Your task to perform on an android device: check battery use Image 0: 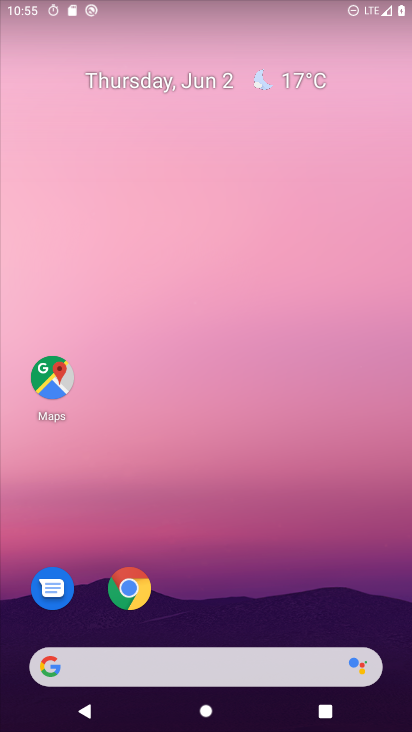
Step 0: drag from (255, 589) to (303, 175)
Your task to perform on an android device: check battery use Image 1: 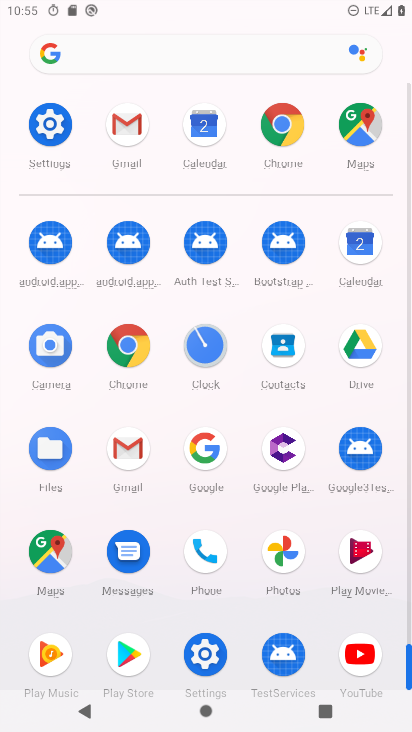
Step 1: click (62, 130)
Your task to perform on an android device: check battery use Image 2: 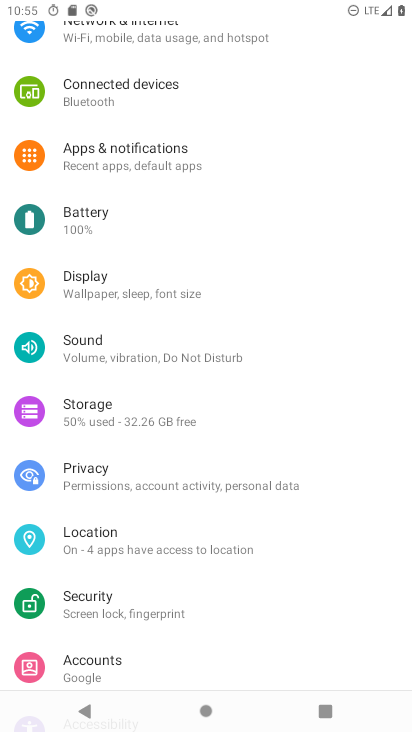
Step 2: click (143, 219)
Your task to perform on an android device: check battery use Image 3: 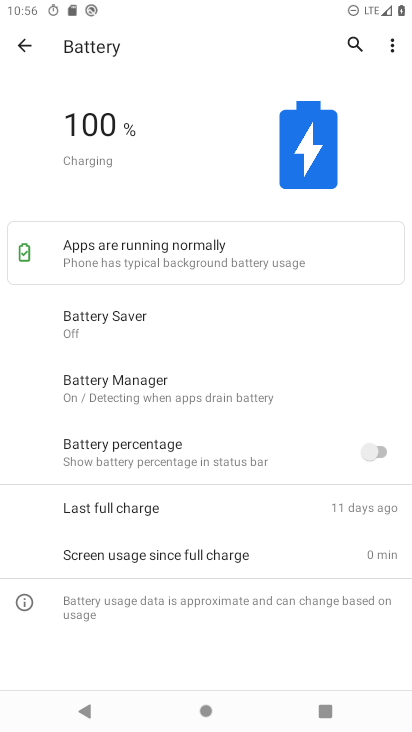
Step 3: task complete